Your task to perform on an android device: refresh tabs in the chrome app Image 0: 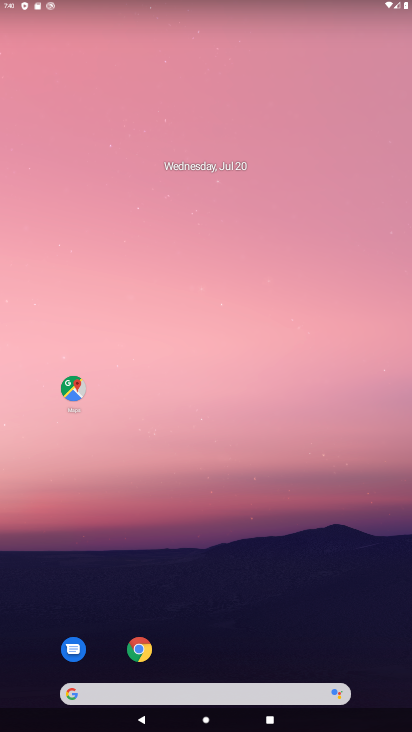
Step 0: click (150, 648)
Your task to perform on an android device: refresh tabs in the chrome app Image 1: 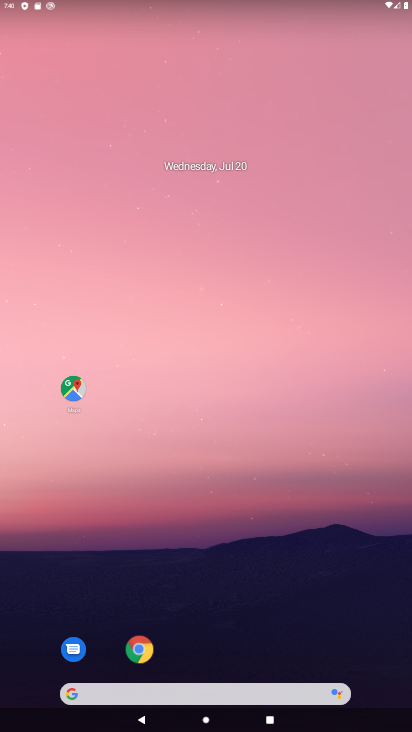
Step 1: click (150, 648)
Your task to perform on an android device: refresh tabs in the chrome app Image 2: 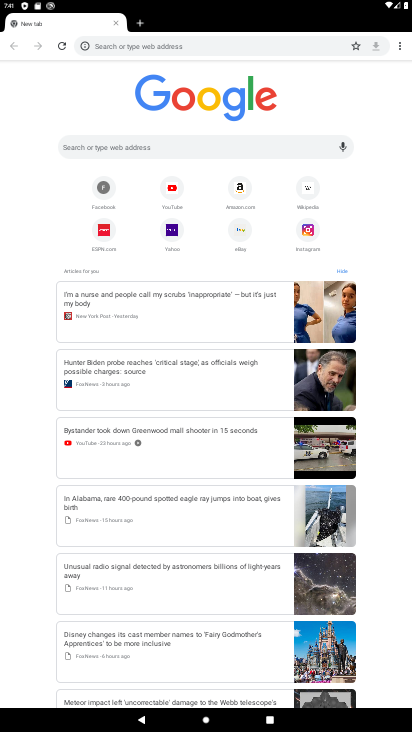
Step 2: click (61, 51)
Your task to perform on an android device: refresh tabs in the chrome app Image 3: 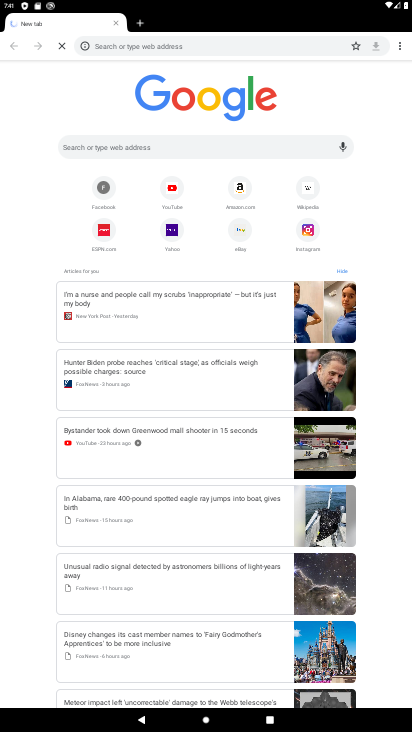
Step 3: task complete